Your task to perform on an android device: What is the capital of Spain? Image 0: 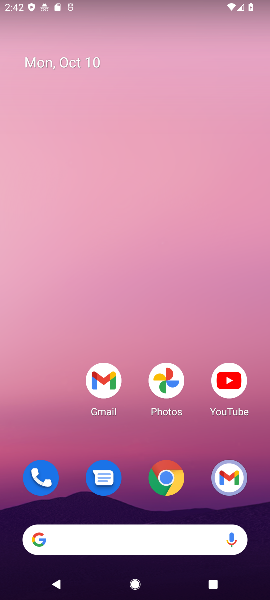
Step 0: click (180, 481)
Your task to perform on an android device: What is the capital of Spain? Image 1: 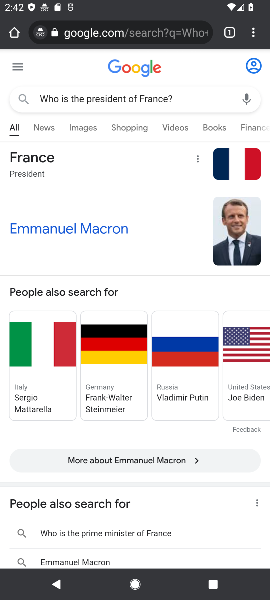
Step 1: click (128, 35)
Your task to perform on an android device: What is the capital of Spain? Image 2: 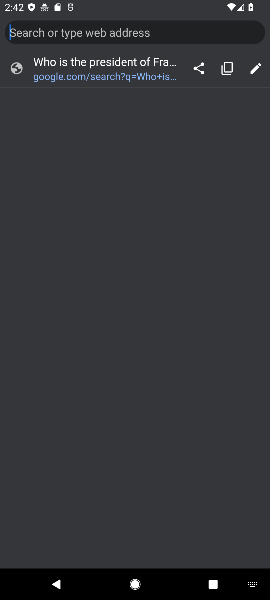
Step 2: type "What is the capital of Spain?"
Your task to perform on an android device: What is the capital of Spain? Image 3: 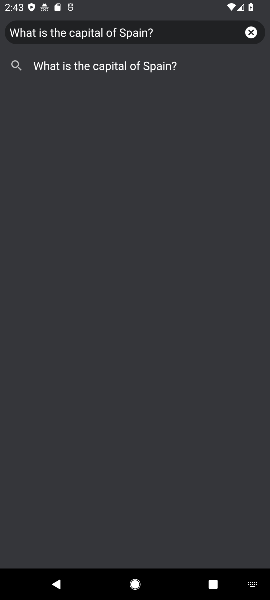
Step 3: click (50, 65)
Your task to perform on an android device: What is the capital of Spain? Image 4: 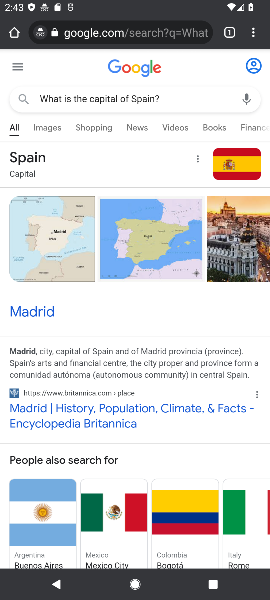
Step 4: task complete